Your task to perform on an android device: Go to eBay Image 0: 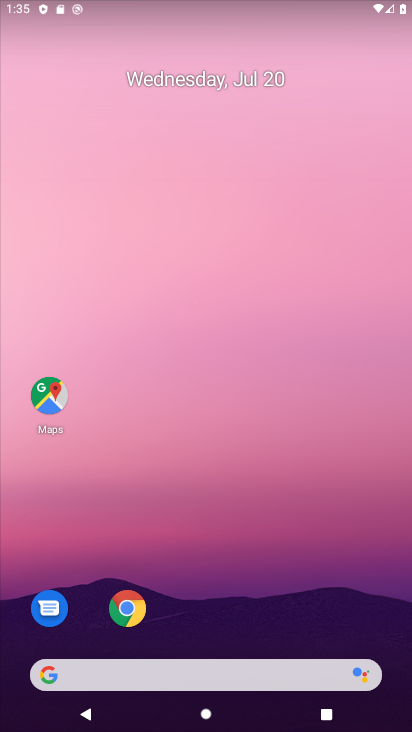
Step 0: click (134, 605)
Your task to perform on an android device: Go to eBay Image 1: 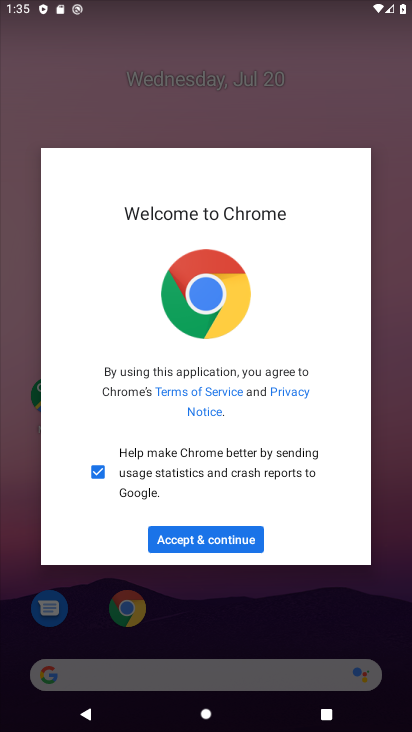
Step 1: click (253, 551)
Your task to perform on an android device: Go to eBay Image 2: 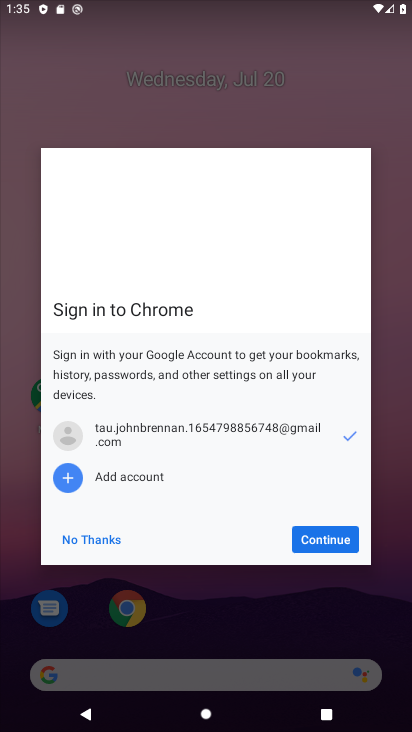
Step 2: click (344, 507)
Your task to perform on an android device: Go to eBay Image 3: 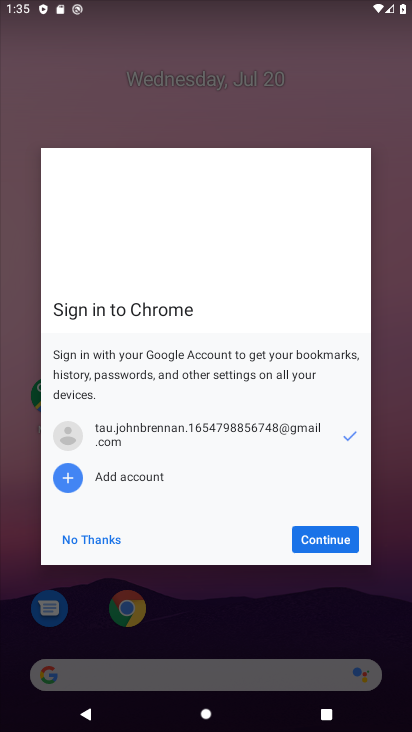
Step 3: click (339, 529)
Your task to perform on an android device: Go to eBay Image 4: 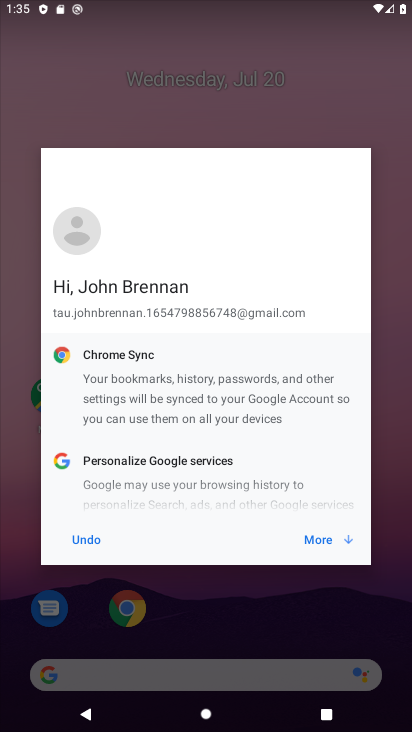
Step 4: click (325, 558)
Your task to perform on an android device: Go to eBay Image 5: 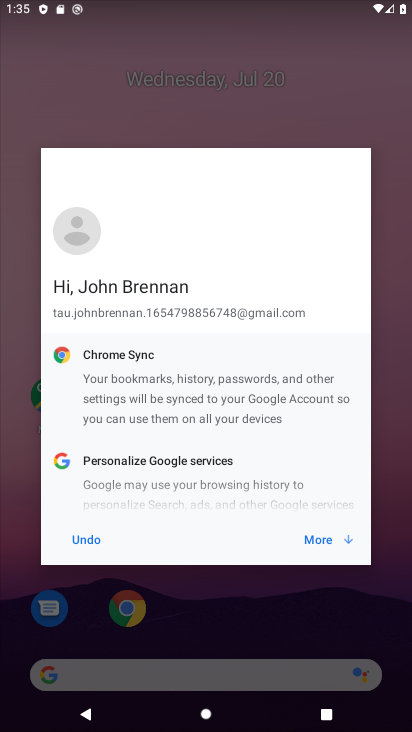
Step 5: click (326, 547)
Your task to perform on an android device: Go to eBay Image 6: 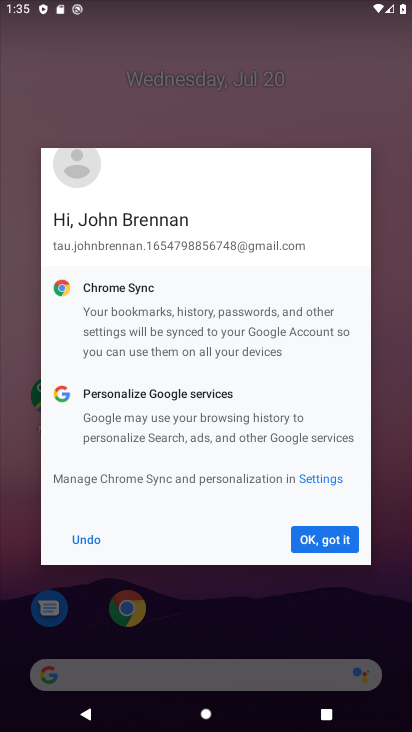
Step 6: click (334, 546)
Your task to perform on an android device: Go to eBay Image 7: 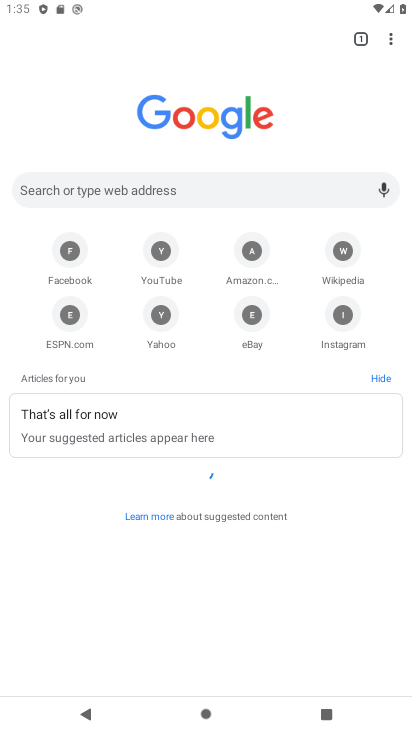
Step 7: click (247, 333)
Your task to perform on an android device: Go to eBay Image 8: 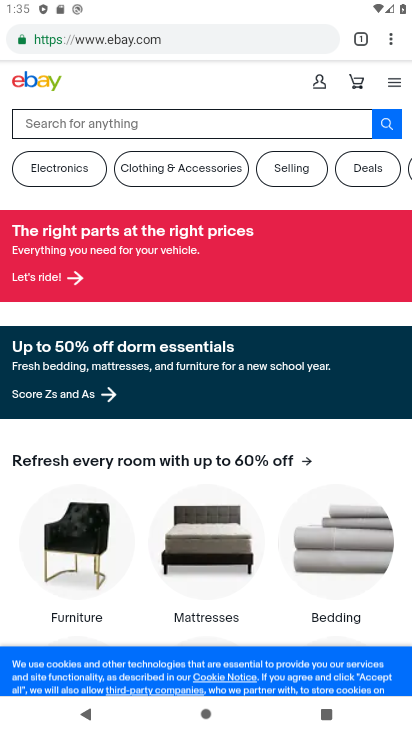
Step 8: task complete